Your task to perform on an android device: Go to Yahoo.com Image 0: 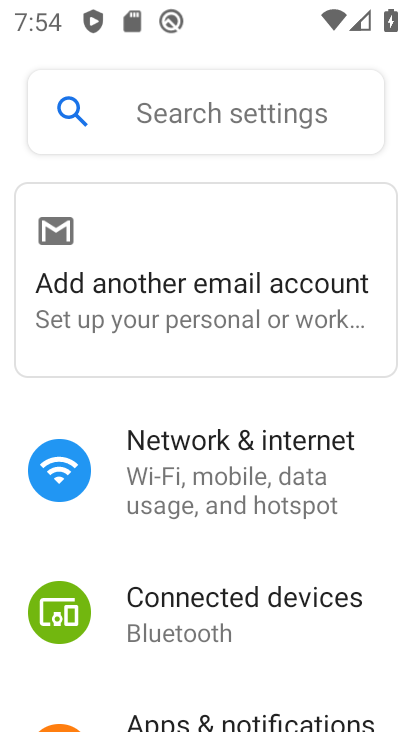
Step 0: press home button
Your task to perform on an android device: Go to Yahoo.com Image 1: 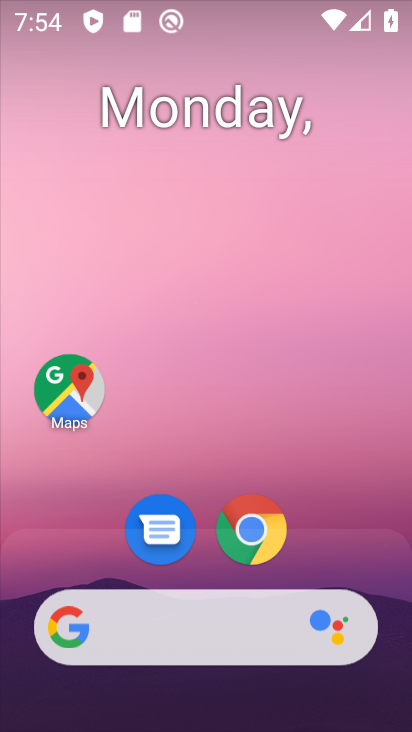
Step 1: click (231, 536)
Your task to perform on an android device: Go to Yahoo.com Image 2: 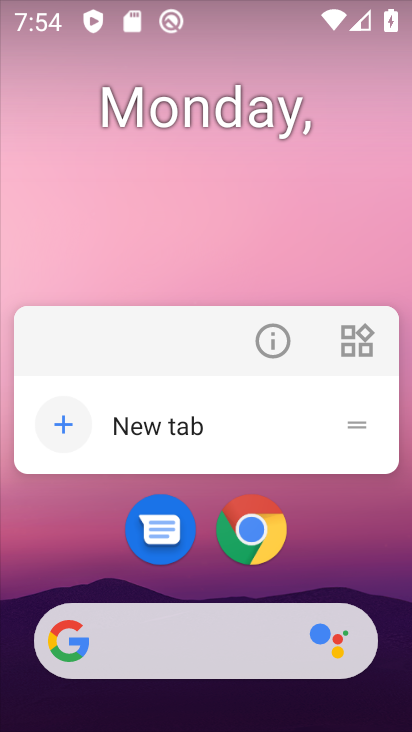
Step 2: click (233, 534)
Your task to perform on an android device: Go to Yahoo.com Image 3: 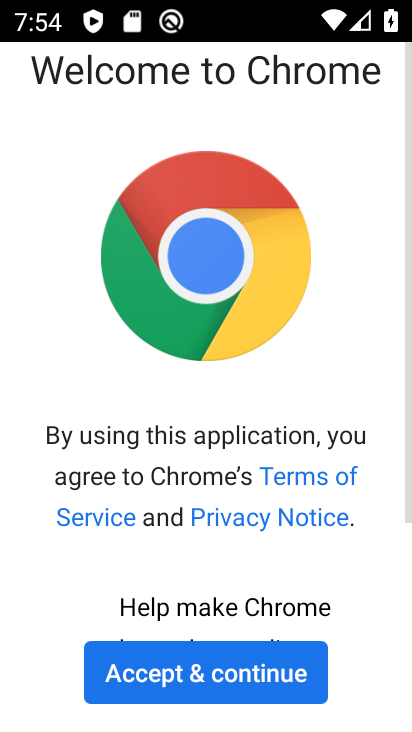
Step 3: click (225, 641)
Your task to perform on an android device: Go to Yahoo.com Image 4: 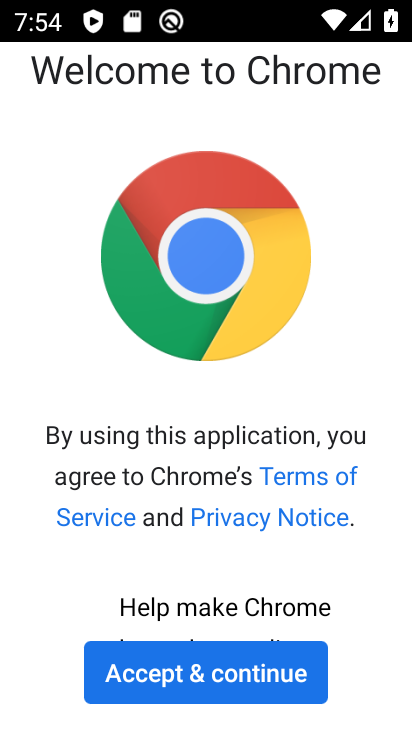
Step 4: click (166, 676)
Your task to perform on an android device: Go to Yahoo.com Image 5: 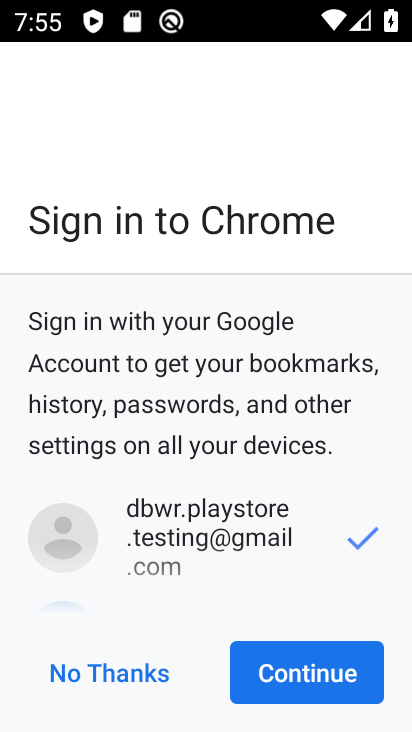
Step 5: click (262, 663)
Your task to perform on an android device: Go to Yahoo.com Image 6: 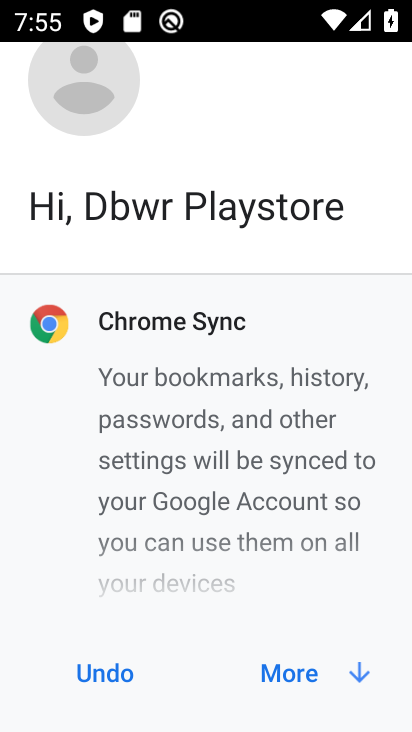
Step 6: click (262, 663)
Your task to perform on an android device: Go to Yahoo.com Image 7: 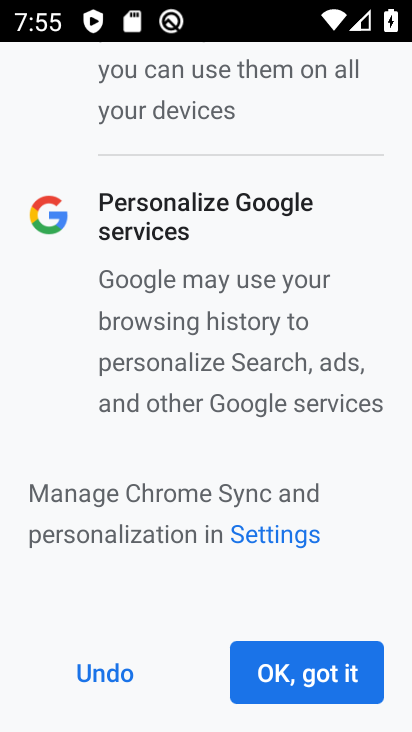
Step 7: click (262, 663)
Your task to perform on an android device: Go to Yahoo.com Image 8: 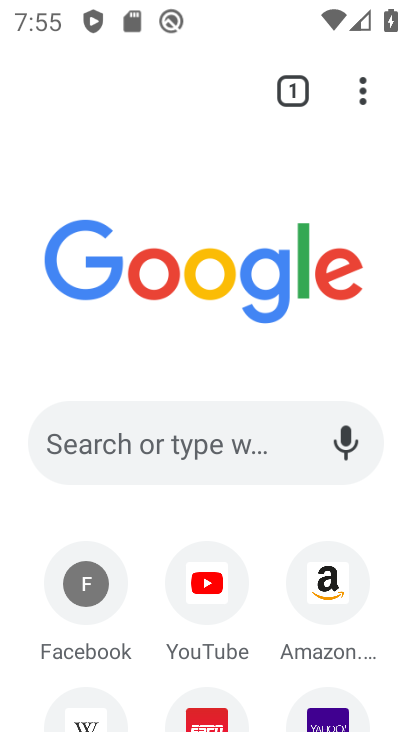
Step 8: drag from (244, 649) to (280, 383)
Your task to perform on an android device: Go to Yahoo.com Image 9: 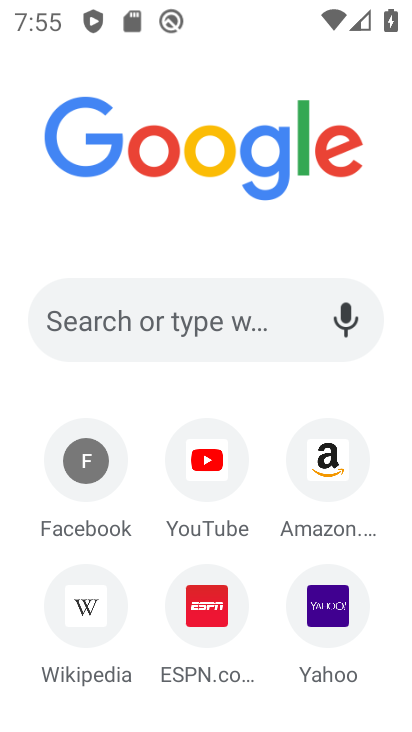
Step 9: click (306, 620)
Your task to perform on an android device: Go to Yahoo.com Image 10: 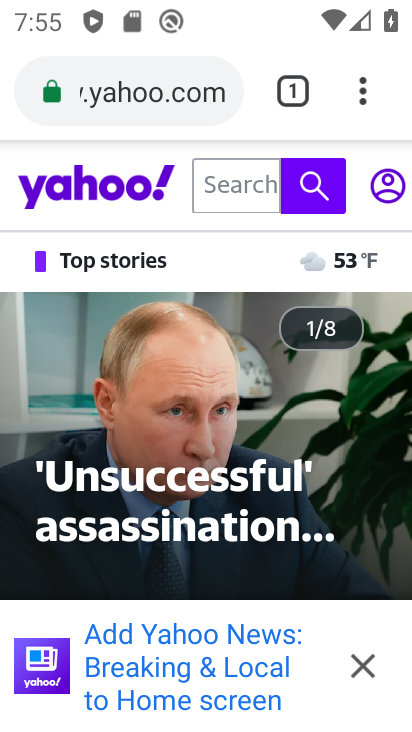
Step 10: task complete